Your task to perform on an android device: Open the gallery Image 0: 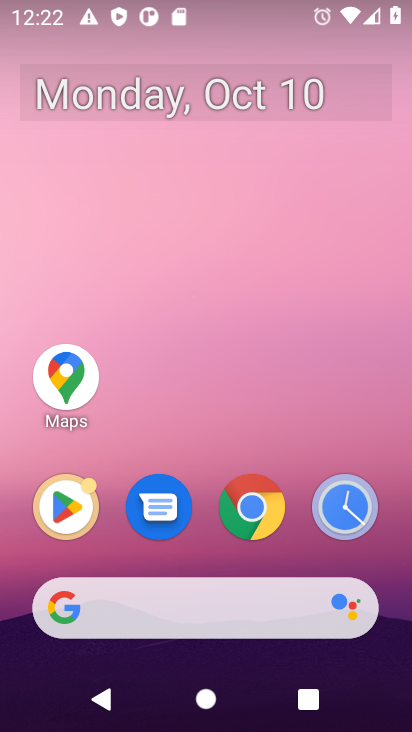
Step 0: press home button
Your task to perform on an android device: Open the gallery Image 1: 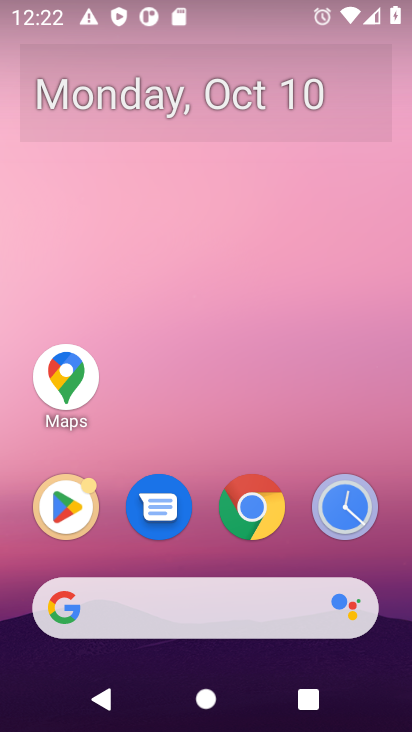
Step 1: task complete